Your task to perform on an android device: toggle location history Image 0: 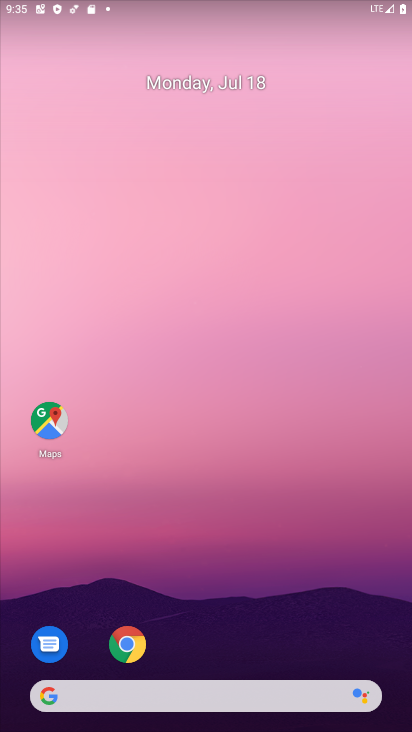
Step 0: drag from (225, 676) to (101, 75)
Your task to perform on an android device: toggle location history Image 1: 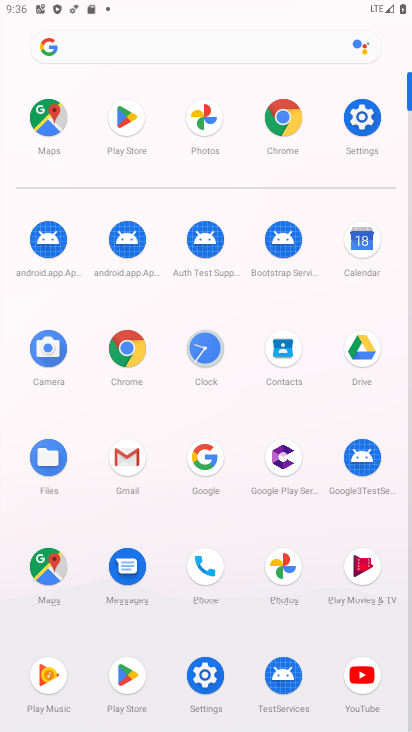
Step 1: click (350, 125)
Your task to perform on an android device: toggle location history Image 2: 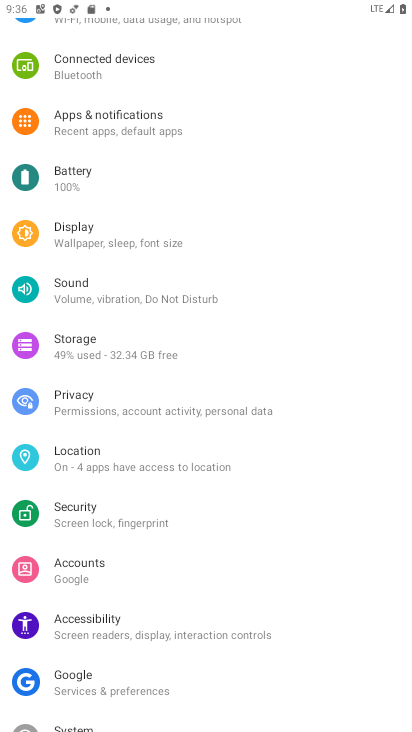
Step 2: click (71, 444)
Your task to perform on an android device: toggle location history Image 3: 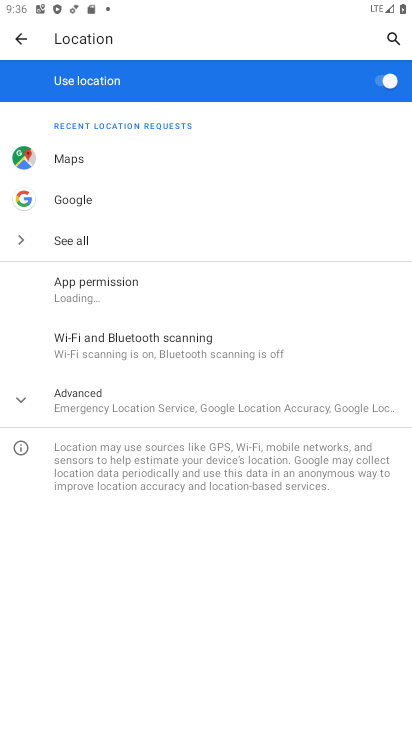
Step 3: click (86, 417)
Your task to perform on an android device: toggle location history Image 4: 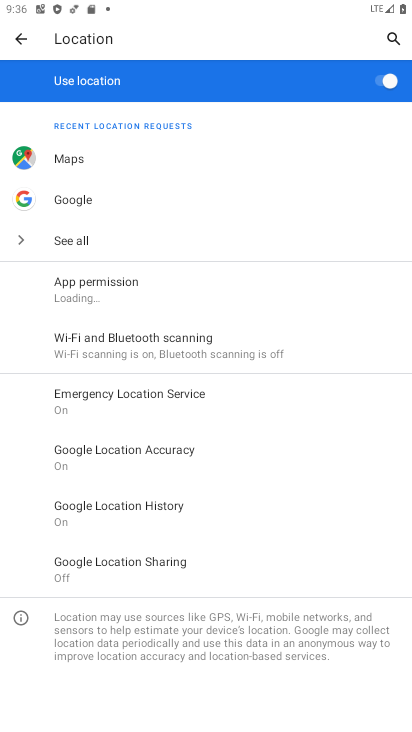
Step 4: click (132, 502)
Your task to perform on an android device: toggle location history Image 5: 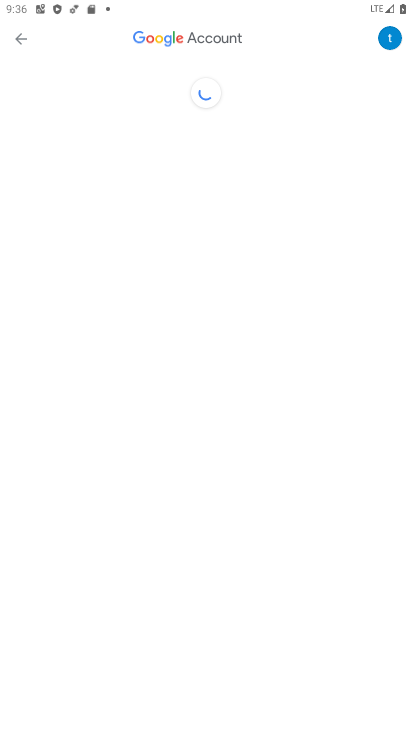
Step 5: click (340, 482)
Your task to perform on an android device: toggle location history Image 6: 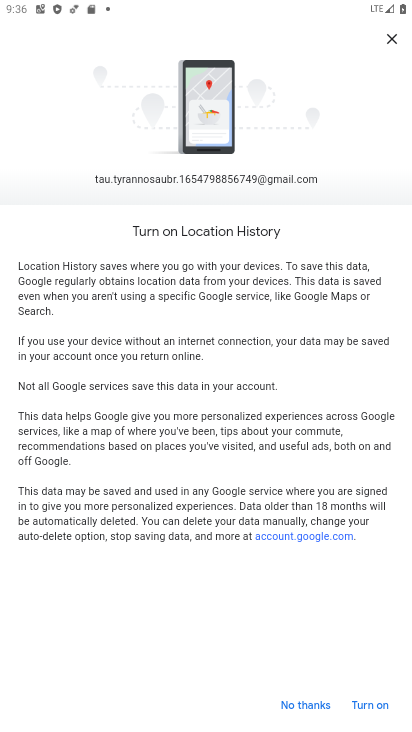
Step 6: click (374, 708)
Your task to perform on an android device: toggle location history Image 7: 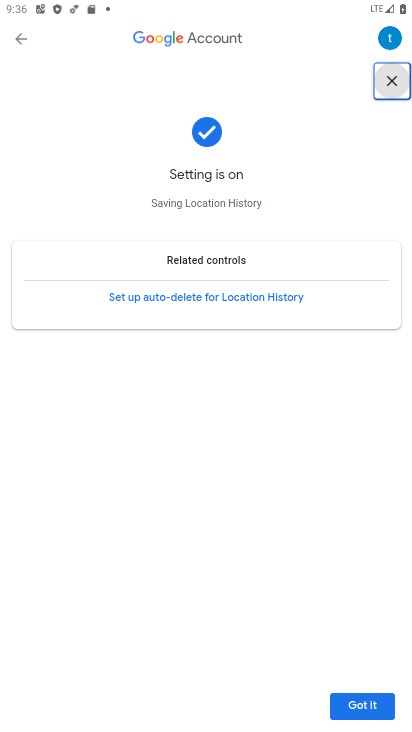
Step 7: click (344, 702)
Your task to perform on an android device: toggle location history Image 8: 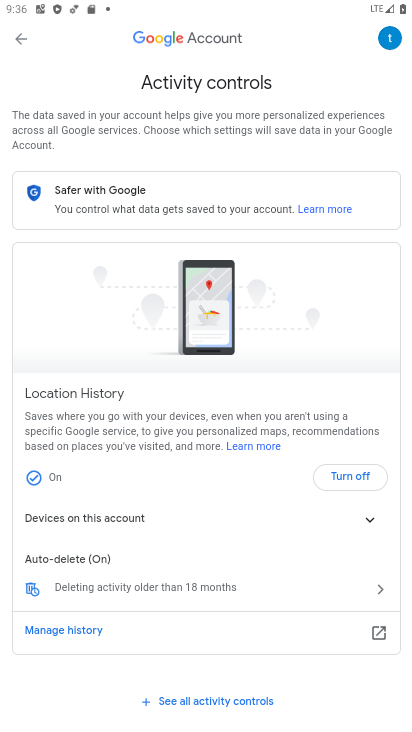
Step 8: click (365, 476)
Your task to perform on an android device: toggle location history Image 9: 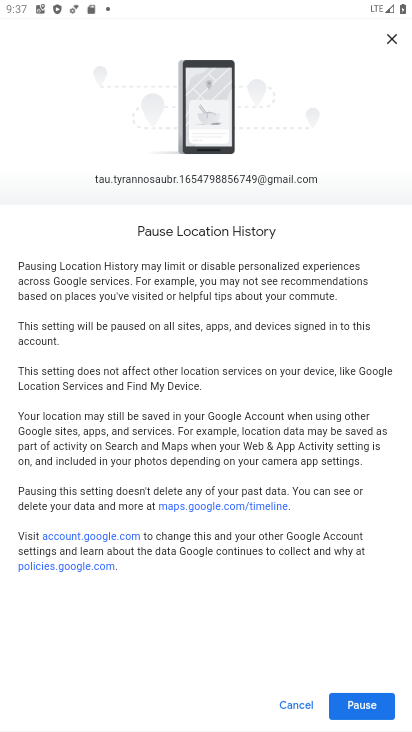
Step 9: task complete